Your task to perform on an android device: change notifications settings Image 0: 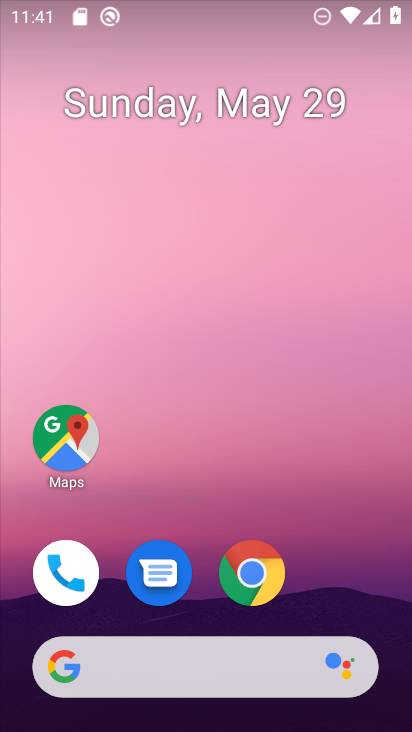
Step 0: drag from (357, 603) to (291, 117)
Your task to perform on an android device: change notifications settings Image 1: 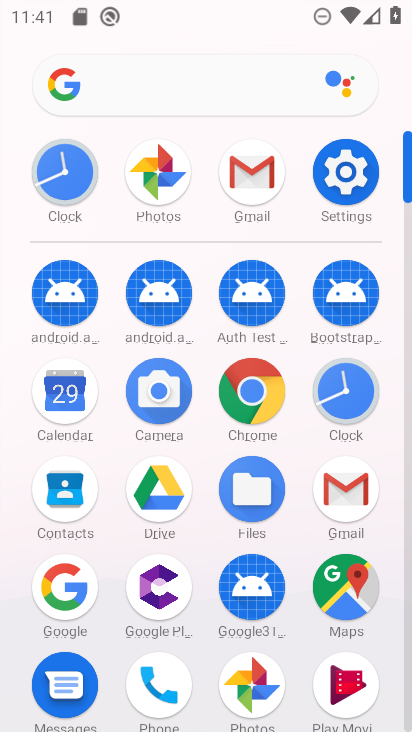
Step 1: click (348, 184)
Your task to perform on an android device: change notifications settings Image 2: 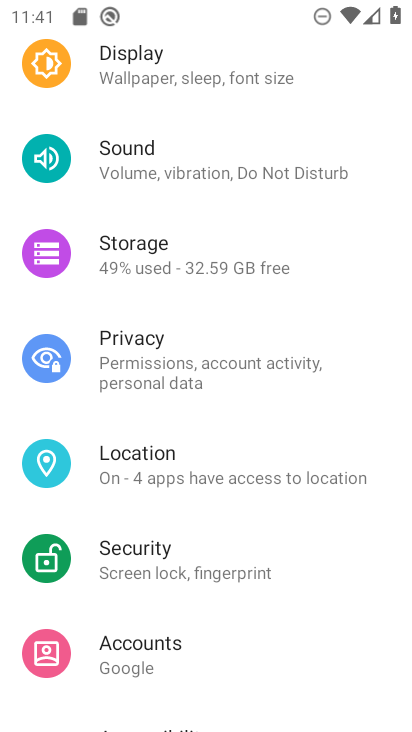
Step 2: drag from (309, 658) to (244, 723)
Your task to perform on an android device: change notifications settings Image 3: 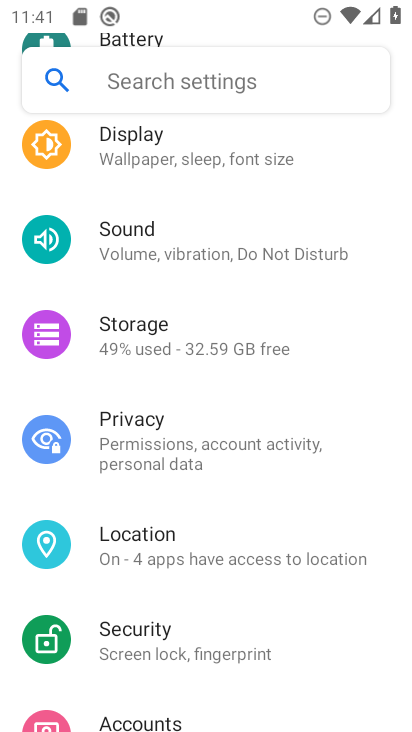
Step 3: drag from (352, 156) to (316, 577)
Your task to perform on an android device: change notifications settings Image 4: 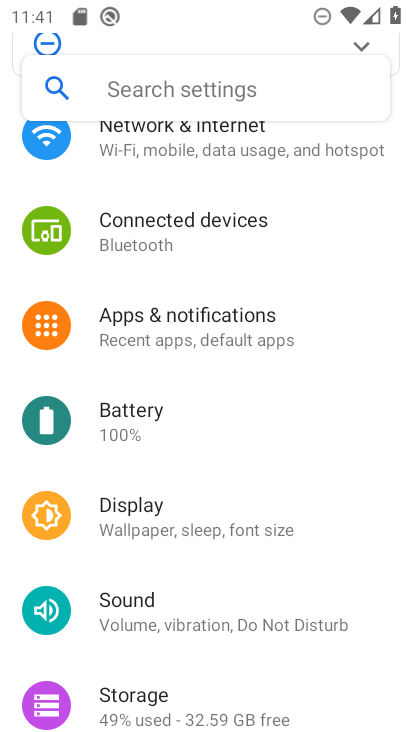
Step 4: click (199, 317)
Your task to perform on an android device: change notifications settings Image 5: 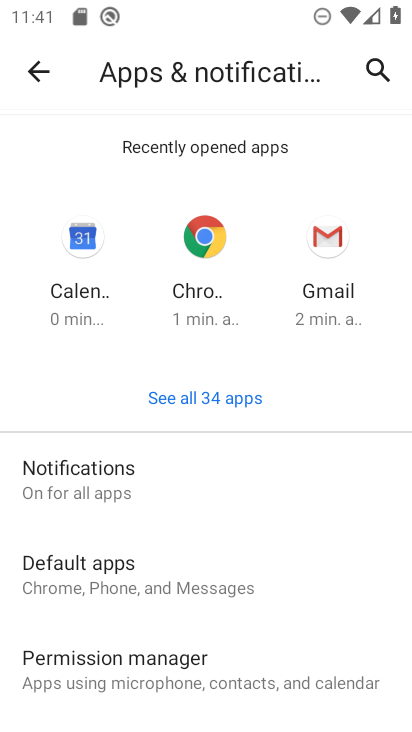
Step 5: click (92, 479)
Your task to perform on an android device: change notifications settings Image 6: 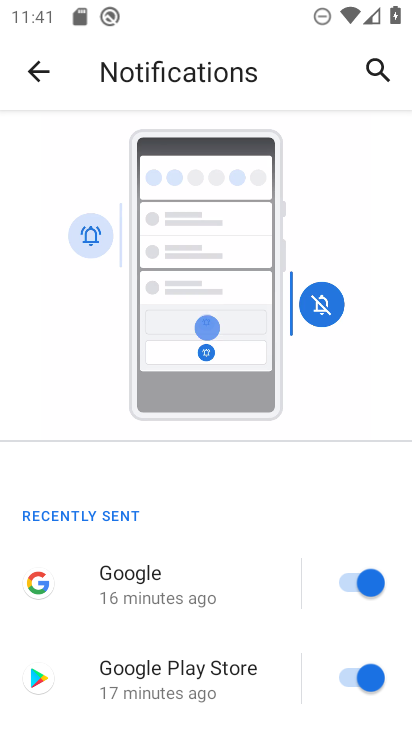
Step 6: click (313, 315)
Your task to perform on an android device: change notifications settings Image 7: 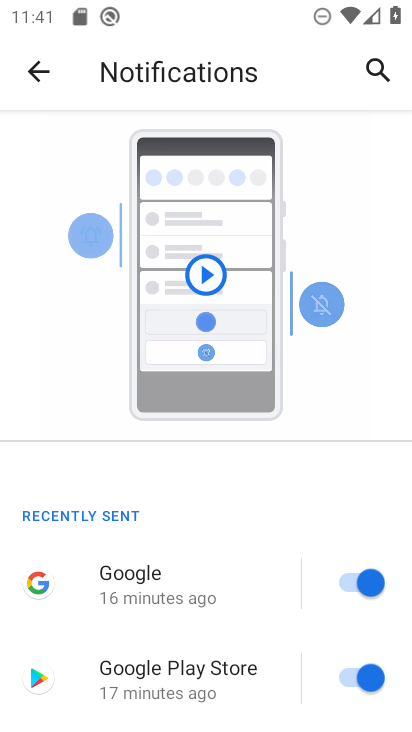
Step 7: drag from (216, 588) to (232, 70)
Your task to perform on an android device: change notifications settings Image 8: 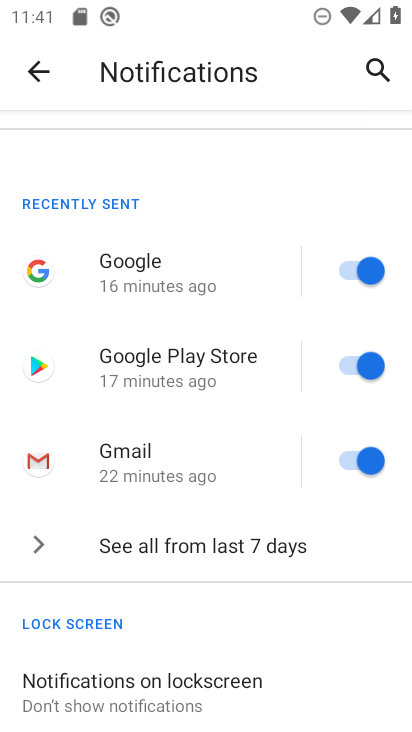
Step 8: click (203, 690)
Your task to perform on an android device: change notifications settings Image 9: 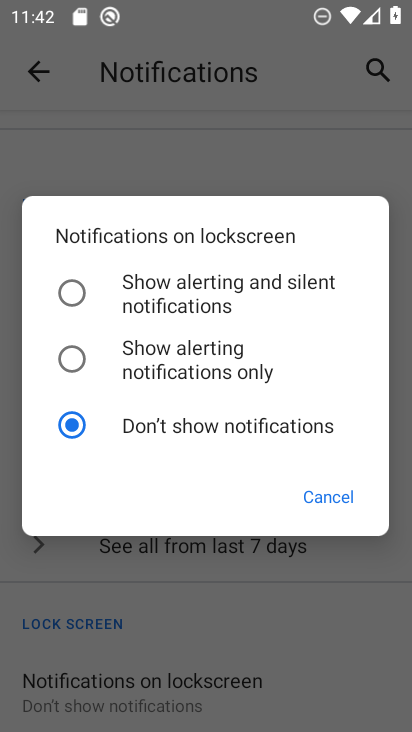
Step 9: task complete